Your task to perform on an android device: Add "logitech g pro" to the cart on walmart.com, then select checkout. Image 0: 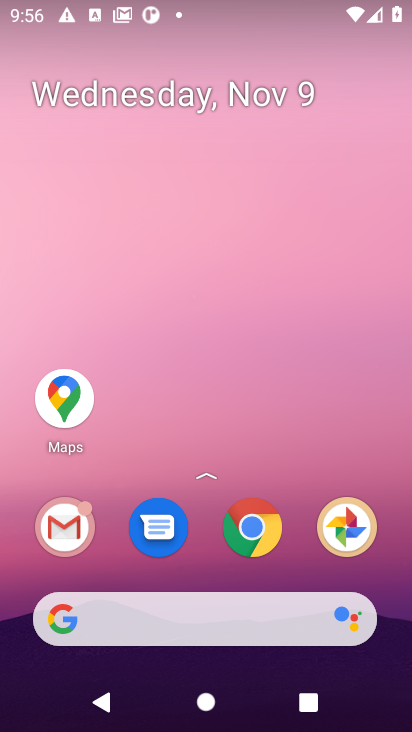
Step 0: click (257, 541)
Your task to perform on an android device: Add "logitech g pro" to the cart on walmart.com, then select checkout. Image 1: 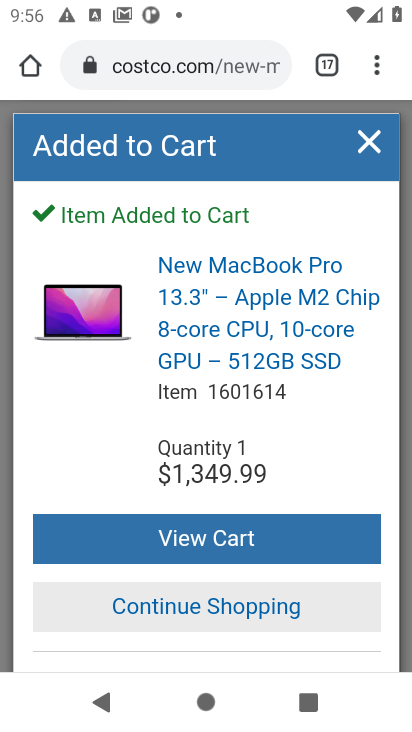
Step 1: click (184, 64)
Your task to perform on an android device: Add "logitech g pro" to the cart on walmart.com, then select checkout. Image 2: 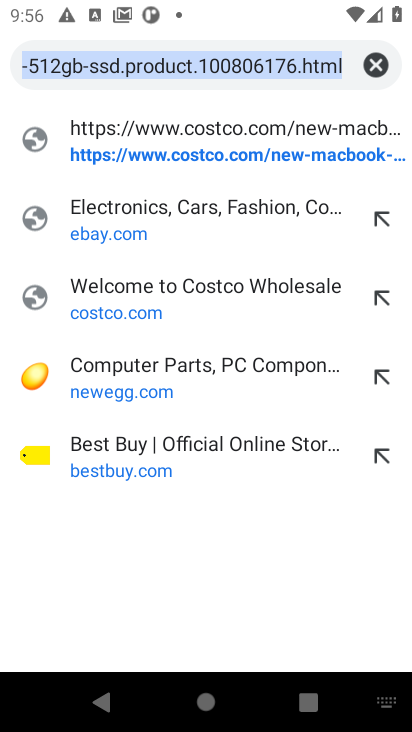
Step 2: type "walmart.com"
Your task to perform on an android device: Add "logitech g pro" to the cart on walmart.com, then select checkout. Image 3: 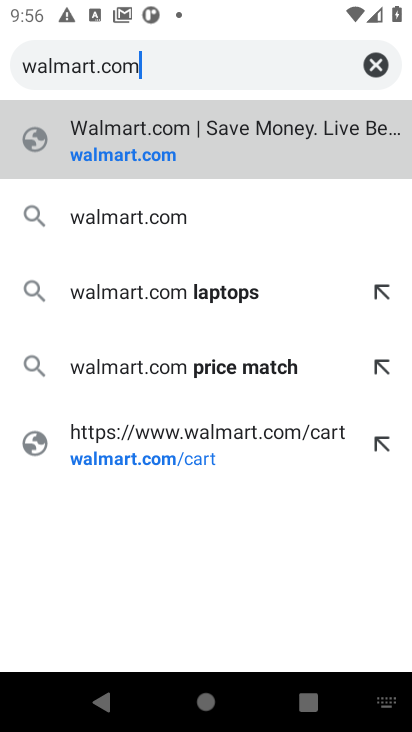
Step 3: click (126, 164)
Your task to perform on an android device: Add "logitech g pro" to the cart on walmart.com, then select checkout. Image 4: 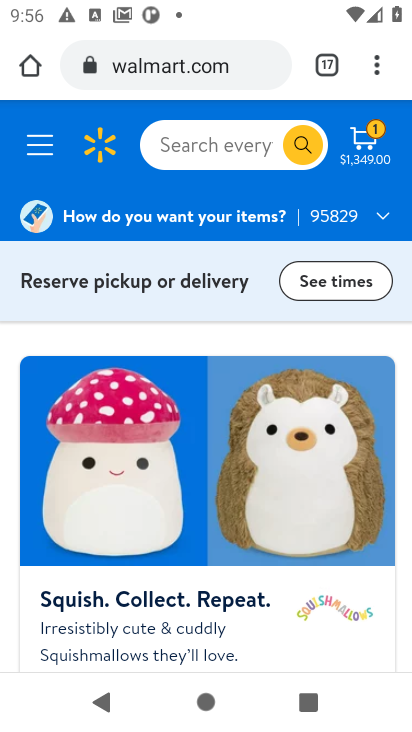
Step 4: click (166, 141)
Your task to perform on an android device: Add "logitech g pro" to the cart on walmart.com, then select checkout. Image 5: 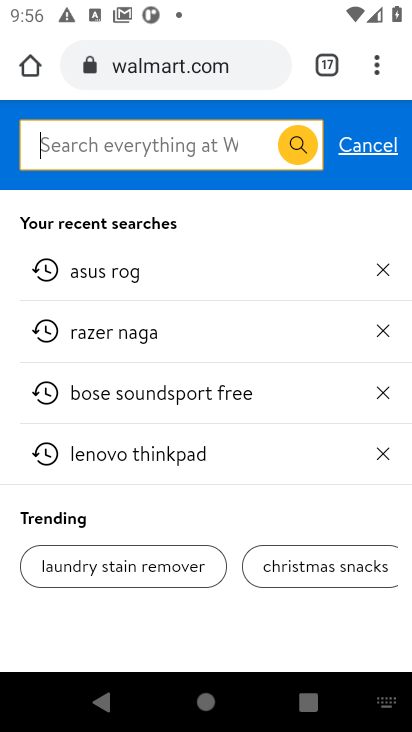
Step 5: type "logitech g pro"
Your task to perform on an android device: Add "logitech g pro" to the cart on walmart.com, then select checkout. Image 6: 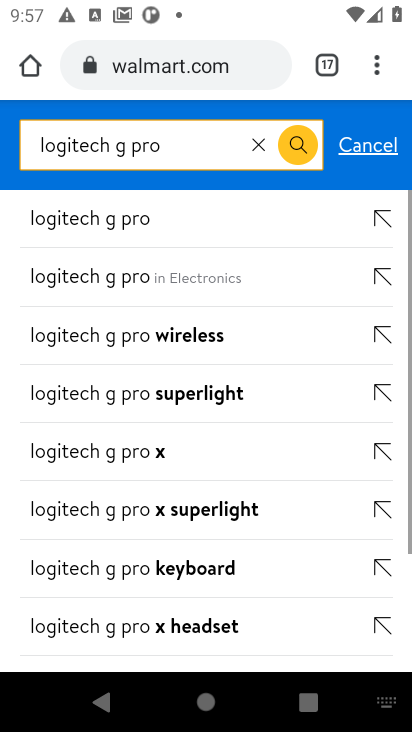
Step 6: click (97, 220)
Your task to perform on an android device: Add "logitech g pro" to the cart on walmart.com, then select checkout. Image 7: 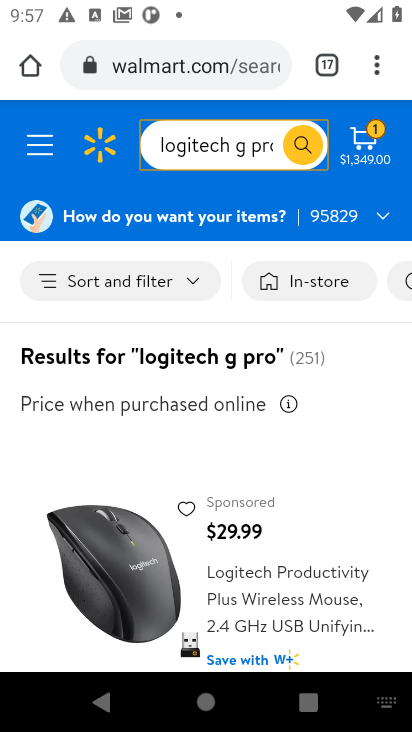
Step 7: drag from (160, 480) to (167, 281)
Your task to perform on an android device: Add "logitech g pro" to the cart on walmart.com, then select checkout. Image 8: 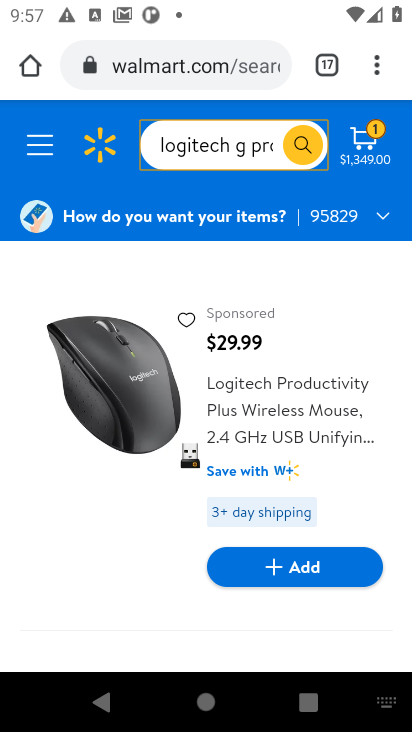
Step 8: drag from (93, 511) to (109, 228)
Your task to perform on an android device: Add "logitech g pro" to the cart on walmart.com, then select checkout. Image 9: 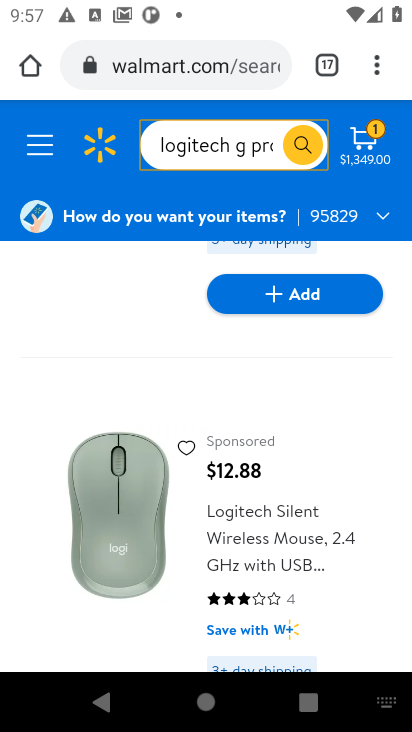
Step 9: drag from (107, 517) to (121, 181)
Your task to perform on an android device: Add "logitech g pro" to the cart on walmart.com, then select checkout. Image 10: 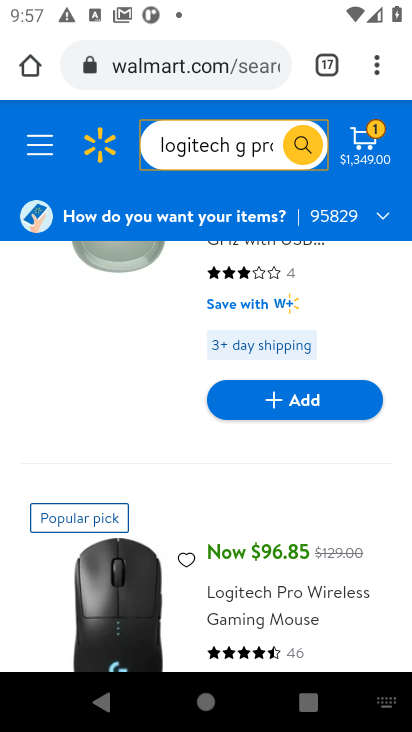
Step 10: drag from (111, 549) to (121, 220)
Your task to perform on an android device: Add "logitech g pro" to the cart on walmart.com, then select checkout. Image 11: 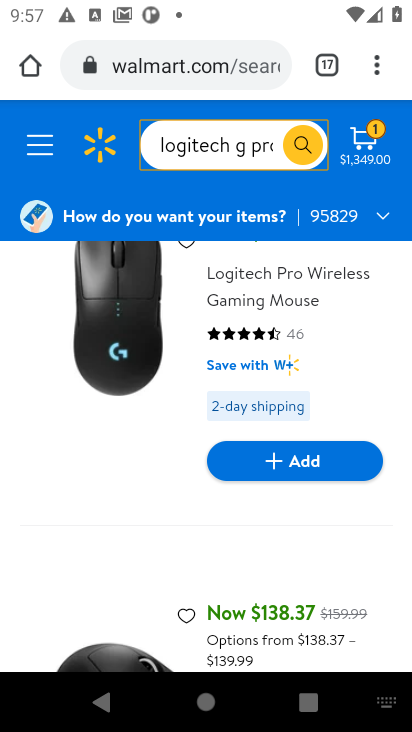
Step 11: drag from (111, 497) to (127, 240)
Your task to perform on an android device: Add "logitech g pro" to the cart on walmart.com, then select checkout. Image 12: 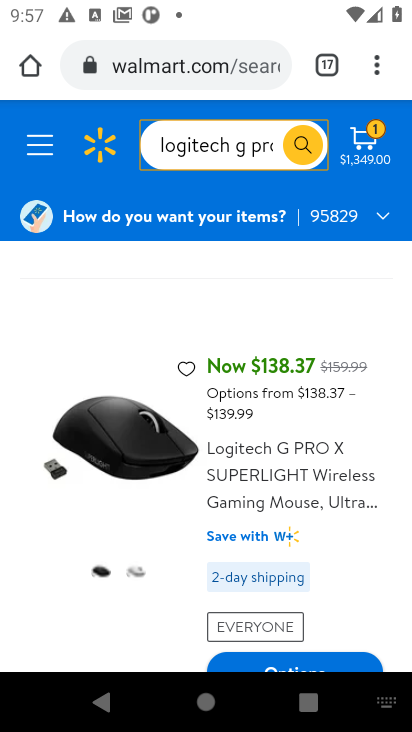
Step 12: drag from (113, 496) to (121, 353)
Your task to perform on an android device: Add "logitech g pro" to the cart on walmart.com, then select checkout. Image 13: 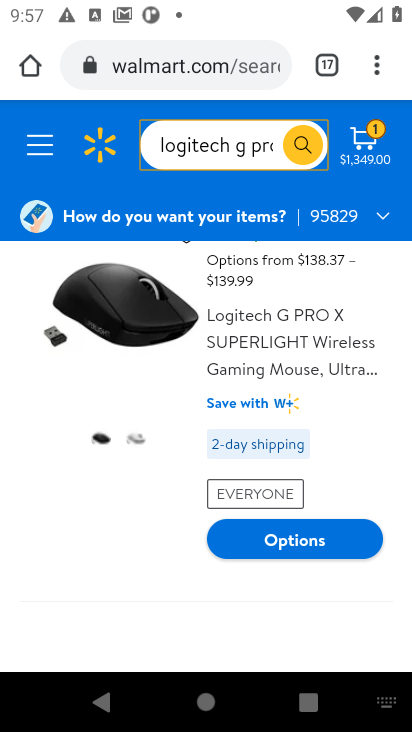
Step 13: click (136, 343)
Your task to perform on an android device: Add "logitech g pro" to the cart on walmart.com, then select checkout. Image 14: 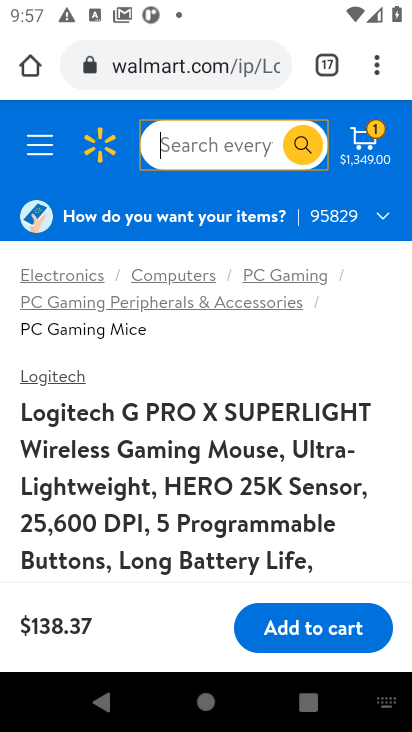
Step 14: click (318, 633)
Your task to perform on an android device: Add "logitech g pro" to the cart on walmart.com, then select checkout. Image 15: 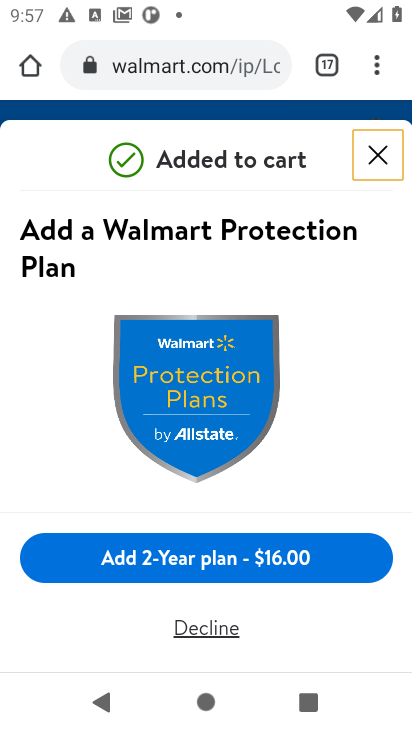
Step 15: click (376, 158)
Your task to perform on an android device: Add "logitech g pro" to the cart on walmart.com, then select checkout. Image 16: 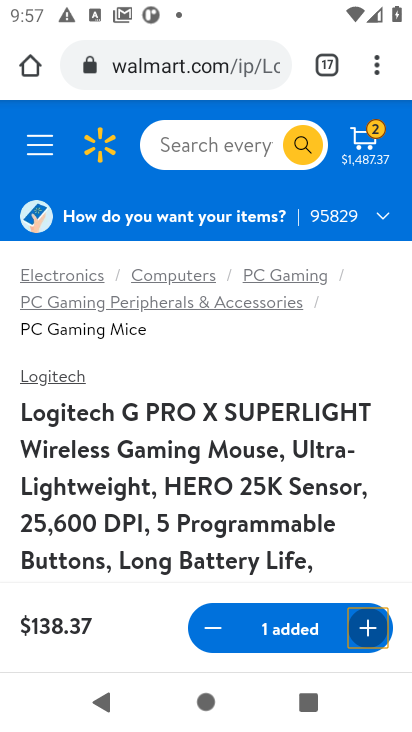
Step 16: click (376, 158)
Your task to perform on an android device: Add "logitech g pro" to the cart on walmart.com, then select checkout. Image 17: 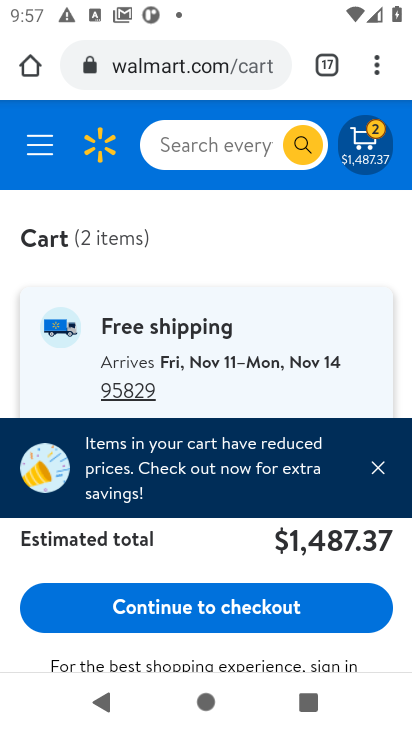
Step 17: click (176, 609)
Your task to perform on an android device: Add "logitech g pro" to the cart on walmart.com, then select checkout. Image 18: 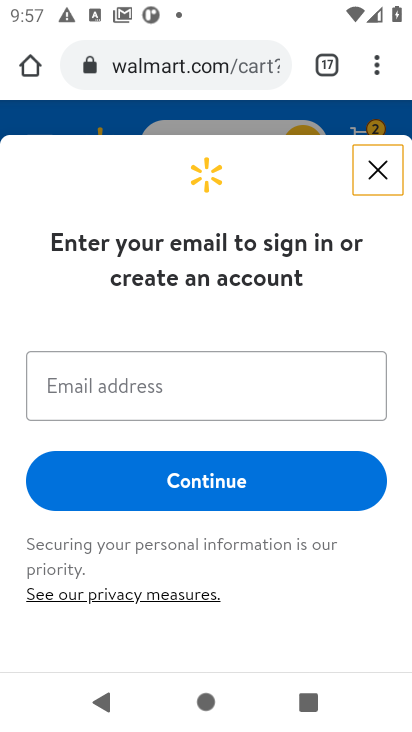
Step 18: task complete